Your task to perform on an android device: Open wifi settings Image 0: 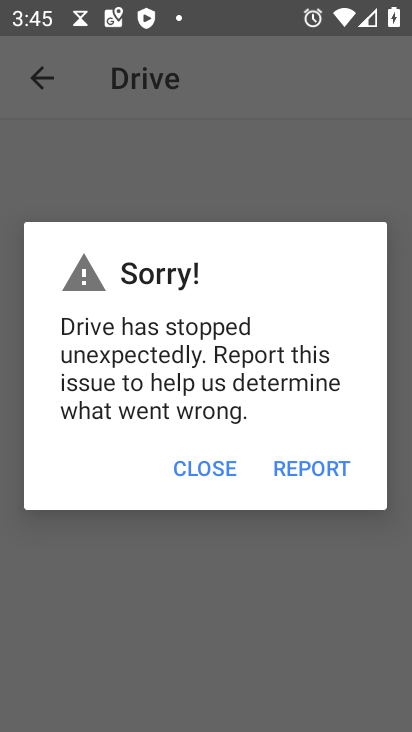
Step 0: click (223, 456)
Your task to perform on an android device: Open wifi settings Image 1: 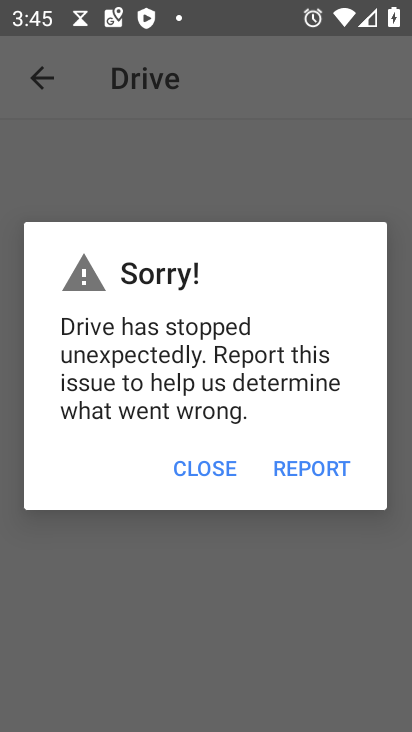
Step 1: click (222, 457)
Your task to perform on an android device: Open wifi settings Image 2: 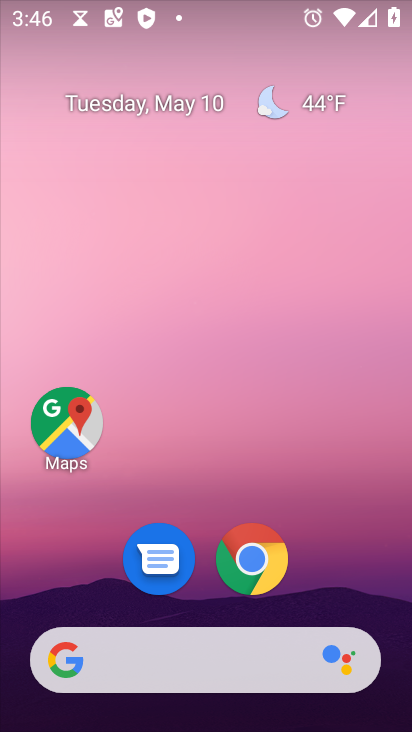
Step 2: drag from (329, 596) to (226, 197)
Your task to perform on an android device: Open wifi settings Image 3: 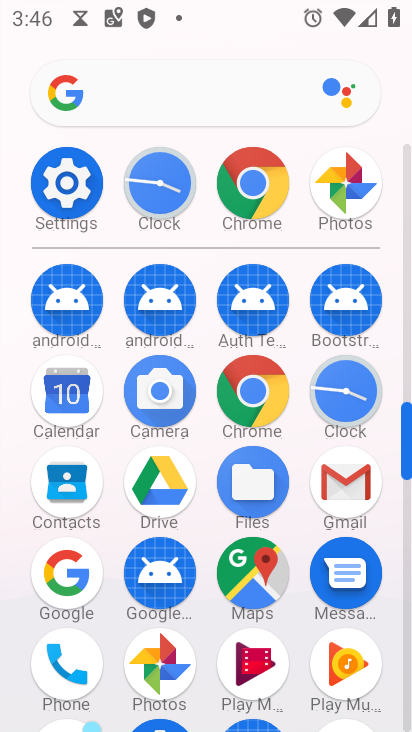
Step 3: click (66, 184)
Your task to perform on an android device: Open wifi settings Image 4: 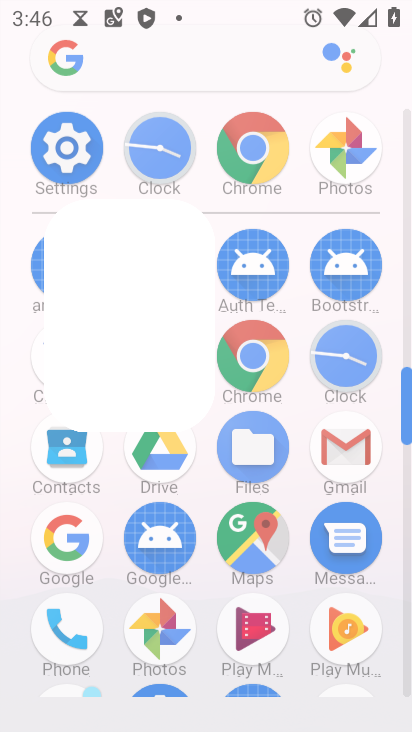
Step 4: click (66, 190)
Your task to perform on an android device: Open wifi settings Image 5: 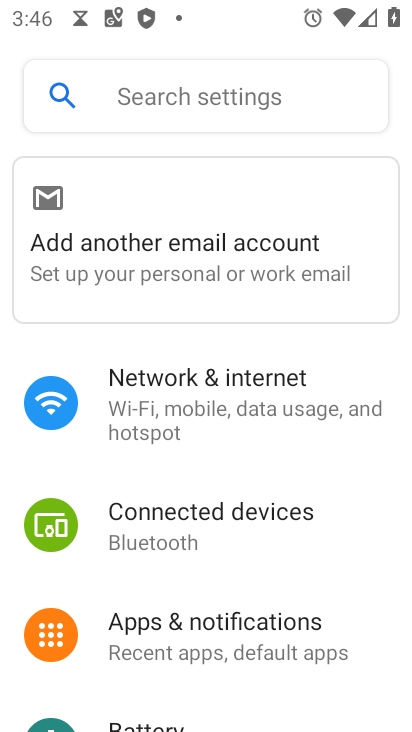
Step 5: click (186, 407)
Your task to perform on an android device: Open wifi settings Image 6: 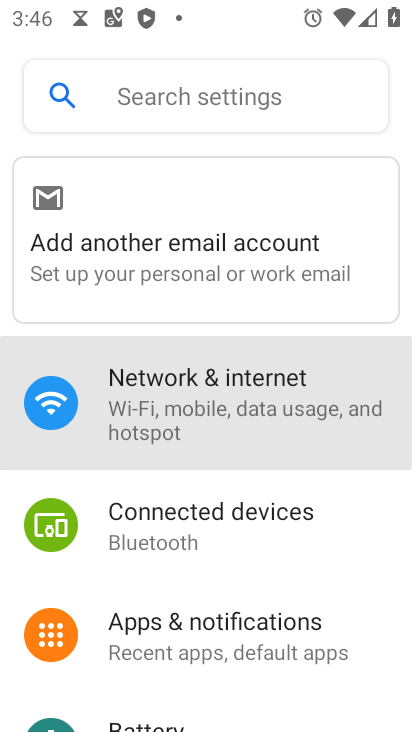
Step 6: click (186, 410)
Your task to perform on an android device: Open wifi settings Image 7: 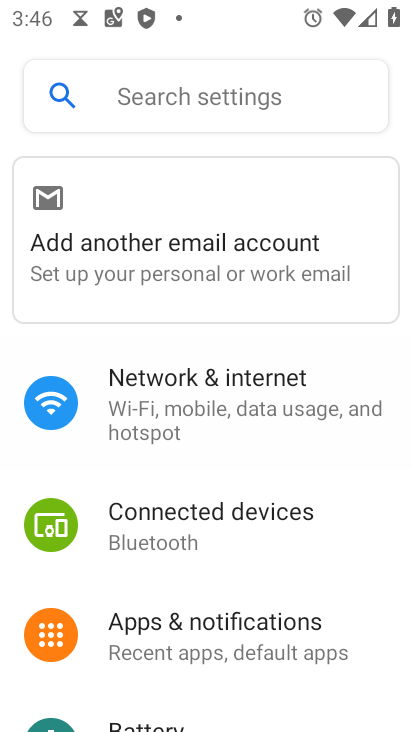
Step 7: click (186, 410)
Your task to perform on an android device: Open wifi settings Image 8: 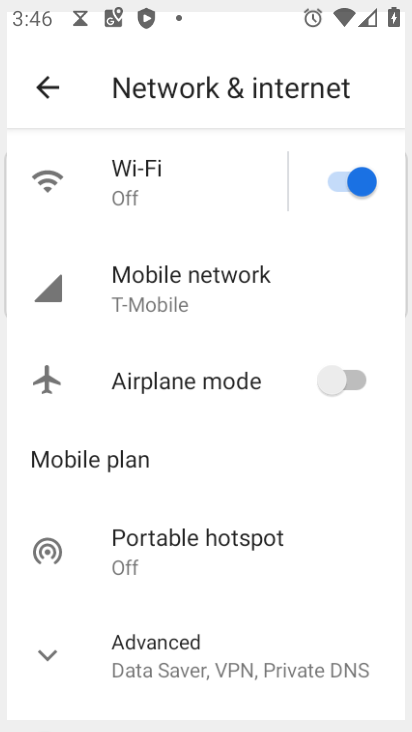
Step 8: click (189, 406)
Your task to perform on an android device: Open wifi settings Image 9: 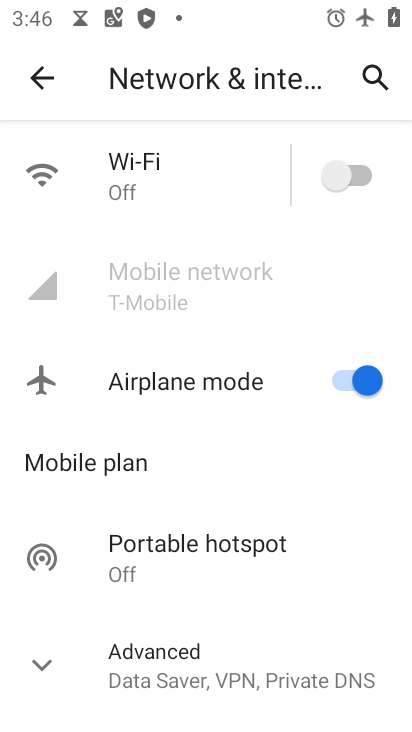
Step 9: click (335, 171)
Your task to perform on an android device: Open wifi settings Image 10: 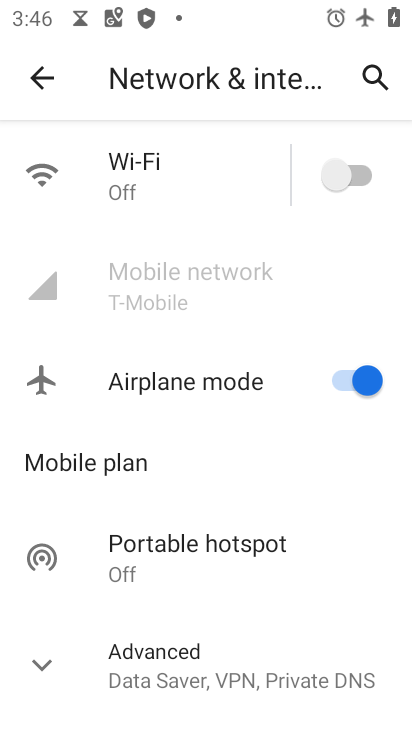
Step 10: click (335, 171)
Your task to perform on an android device: Open wifi settings Image 11: 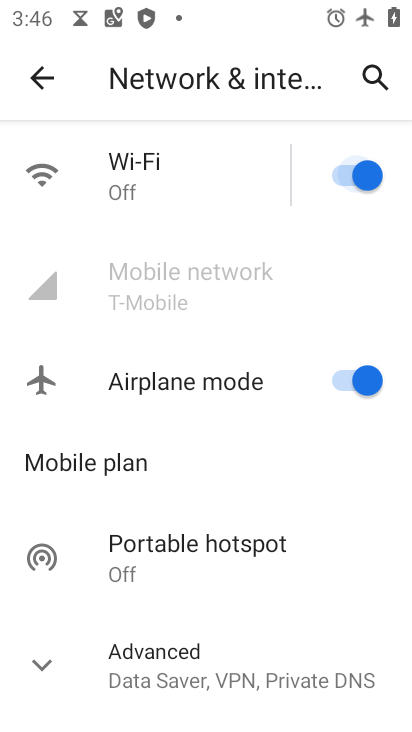
Step 11: click (334, 179)
Your task to perform on an android device: Open wifi settings Image 12: 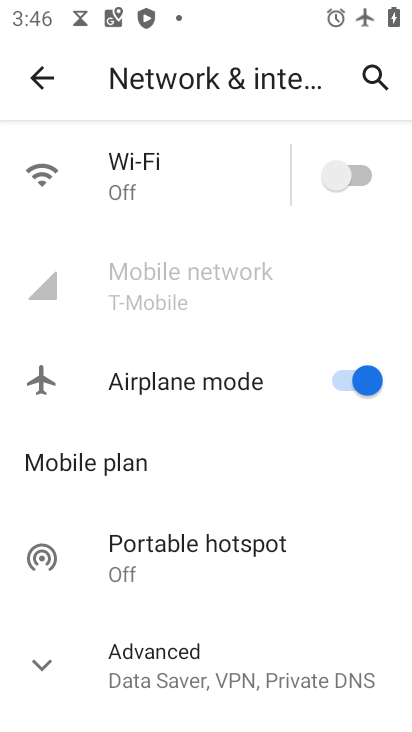
Step 12: click (332, 174)
Your task to perform on an android device: Open wifi settings Image 13: 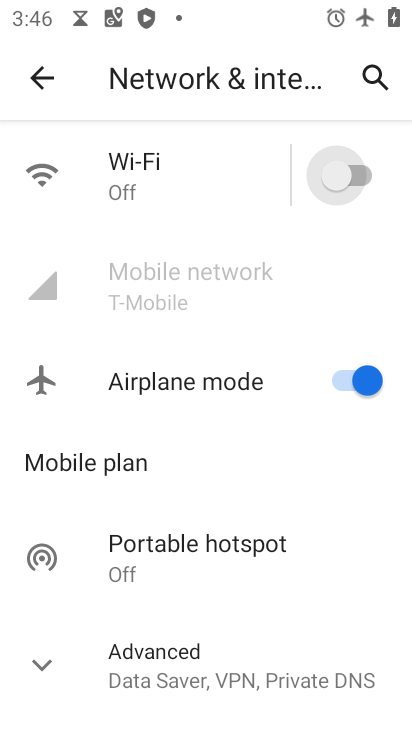
Step 13: click (332, 174)
Your task to perform on an android device: Open wifi settings Image 14: 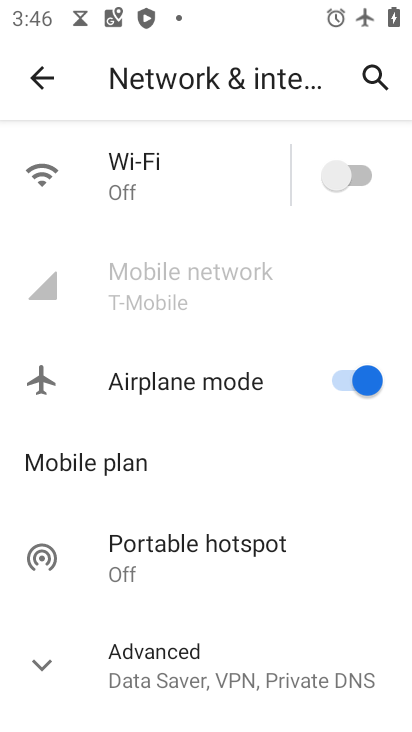
Step 14: click (332, 174)
Your task to perform on an android device: Open wifi settings Image 15: 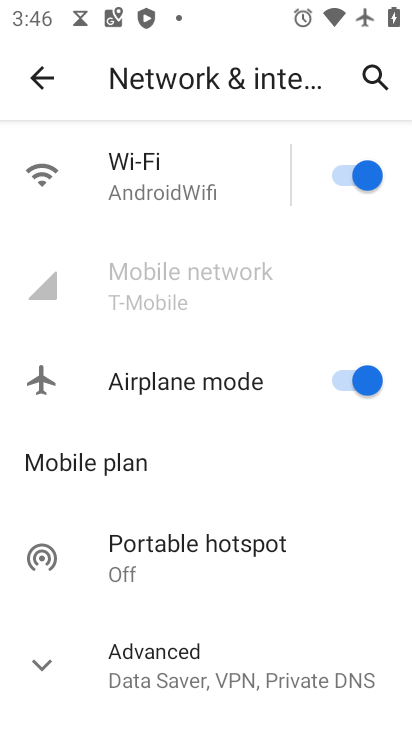
Step 15: click (361, 376)
Your task to perform on an android device: Open wifi settings Image 16: 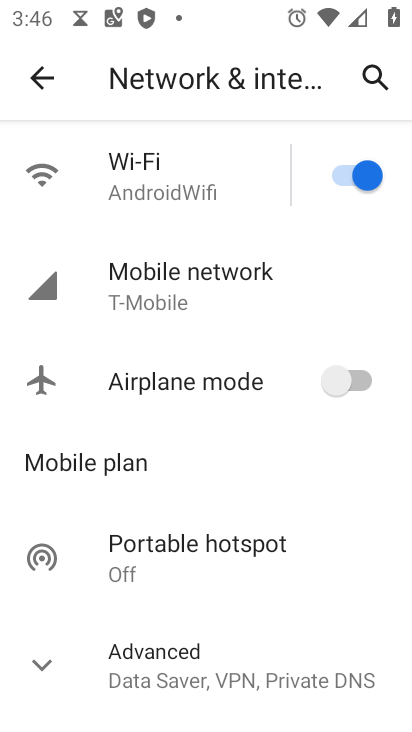
Step 16: task complete